Your task to perform on an android device: Toggle the flashlight Image 0: 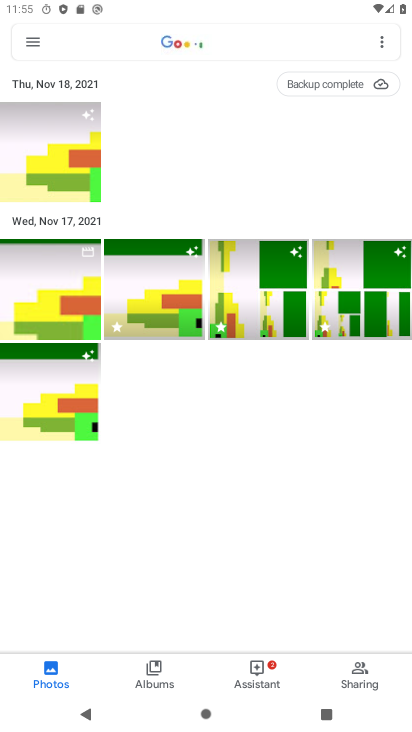
Step 0: drag from (253, 2) to (283, 265)
Your task to perform on an android device: Toggle the flashlight Image 1: 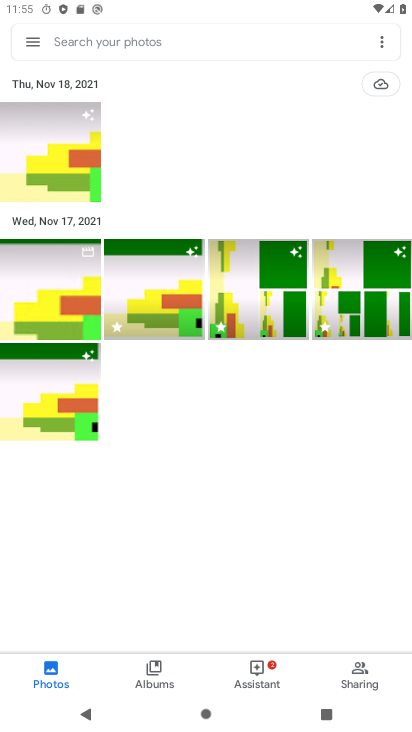
Step 1: drag from (251, 2) to (253, 372)
Your task to perform on an android device: Toggle the flashlight Image 2: 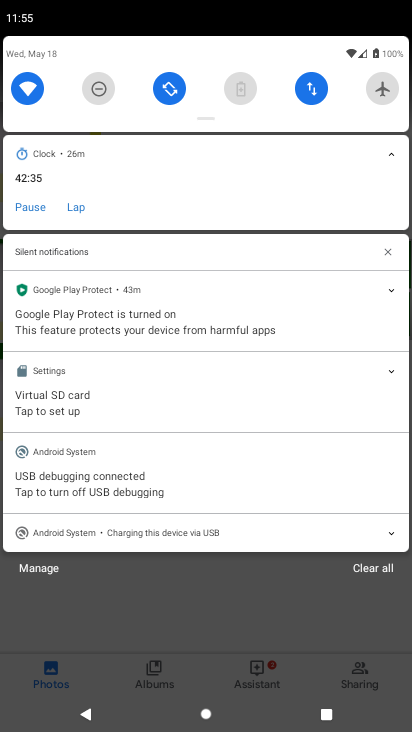
Step 2: drag from (202, 98) to (262, 519)
Your task to perform on an android device: Toggle the flashlight Image 3: 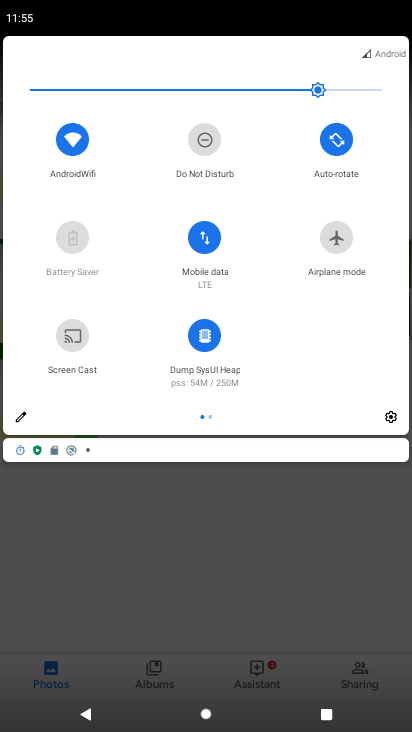
Step 3: click (16, 419)
Your task to perform on an android device: Toggle the flashlight Image 4: 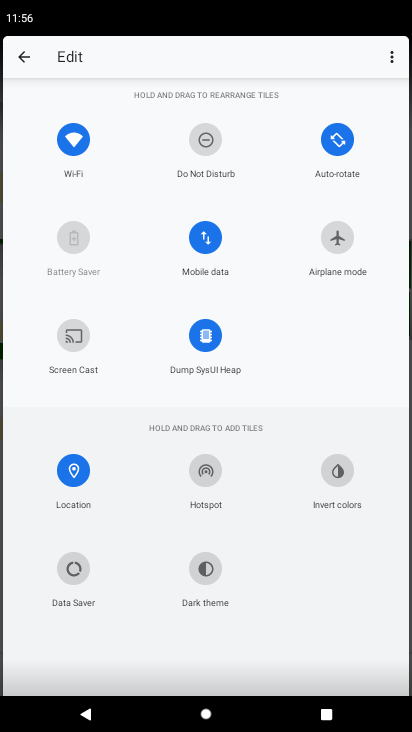
Step 4: task complete